Your task to perform on an android device: delete location history Image 0: 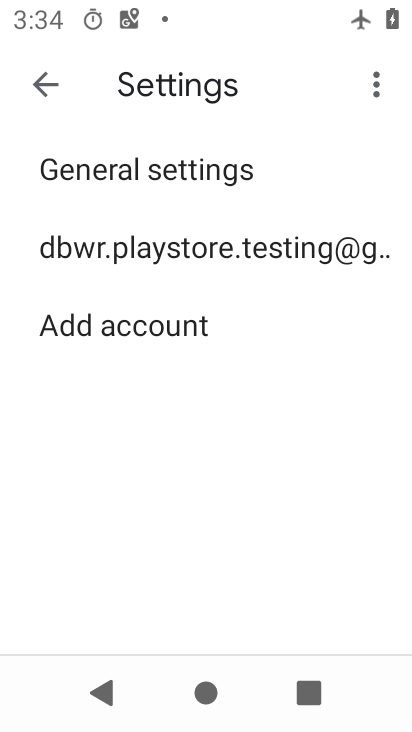
Step 0: press home button
Your task to perform on an android device: delete location history Image 1: 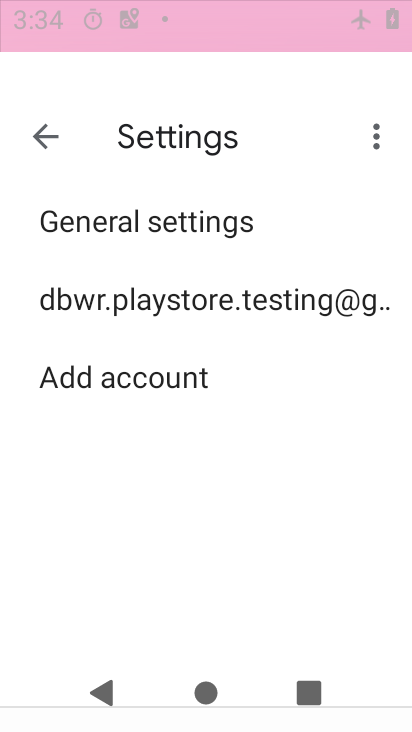
Step 1: drag from (271, 554) to (296, 49)
Your task to perform on an android device: delete location history Image 2: 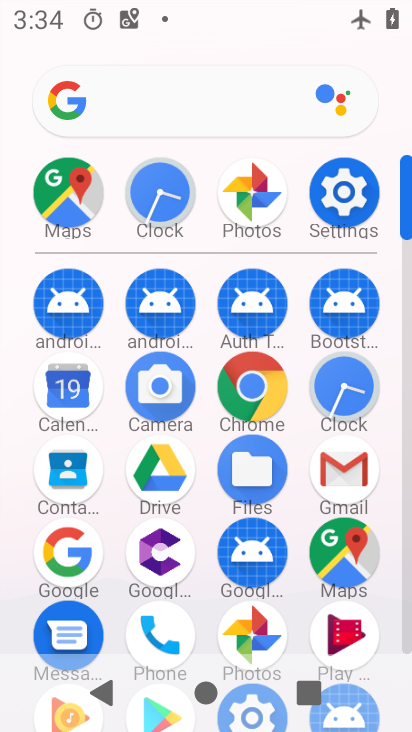
Step 2: click (334, 205)
Your task to perform on an android device: delete location history Image 3: 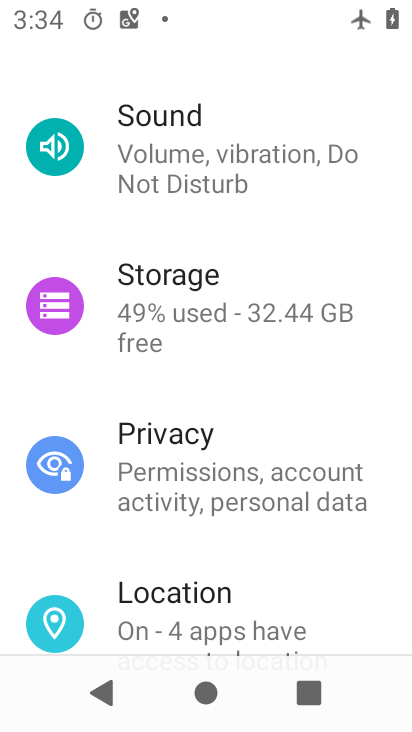
Step 3: drag from (220, 593) to (215, 230)
Your task to perform on an android device: delete location history Image 4: 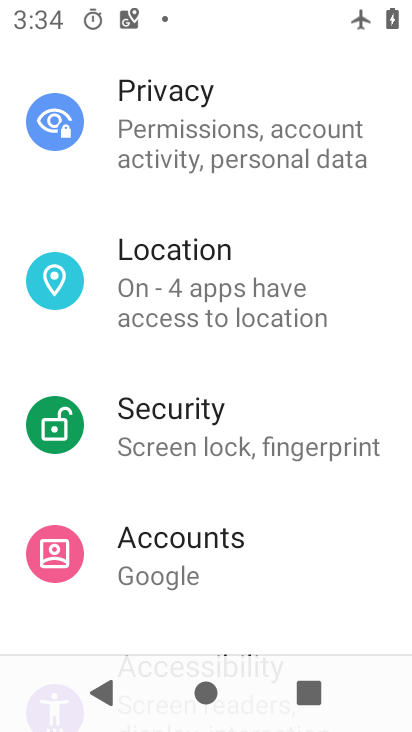
Step 4: click (202, 312)
Your task to perform on an android device: delete location history Image 5: 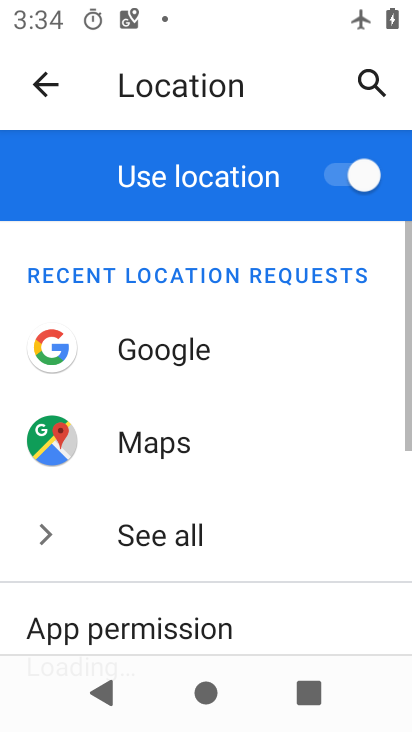
Step 5: drag from (262, 560) to (310, 32)
Your task to perform on an android device: delete location history Image 6: 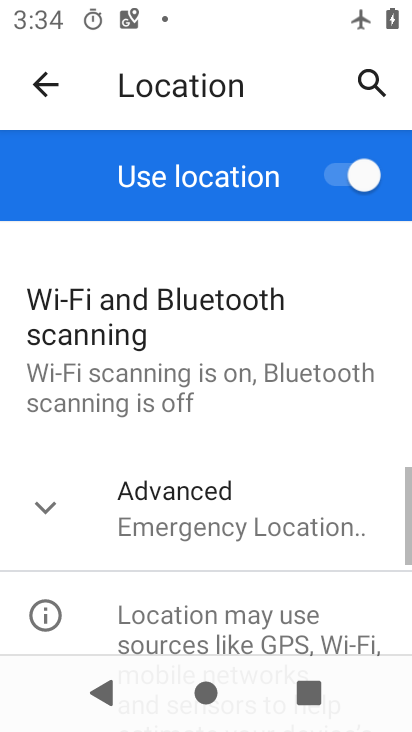
Step 6: click (169, 505)
Your task to perform on an android device: delete location history Image 7: 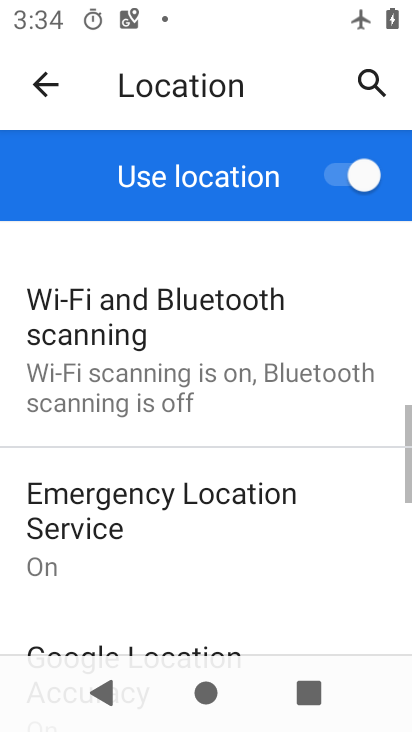
Step 7: drag from (236, 549) to (252, 174)
Your task to perform on an android device: delete location history Image 8: 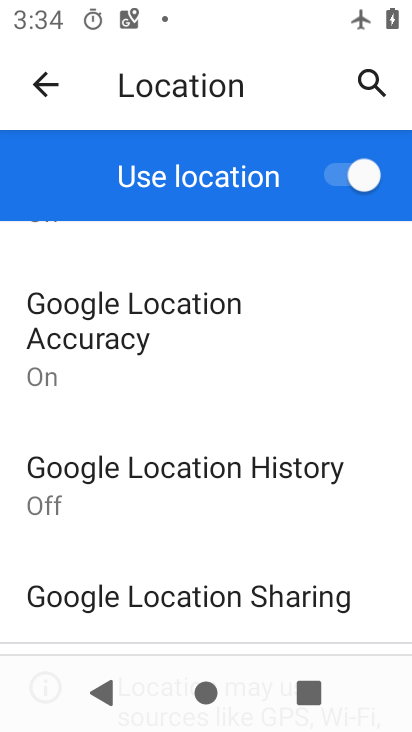
Step 8: click (232, 473)
Your task to perform on an android device: delete location history Image 9: 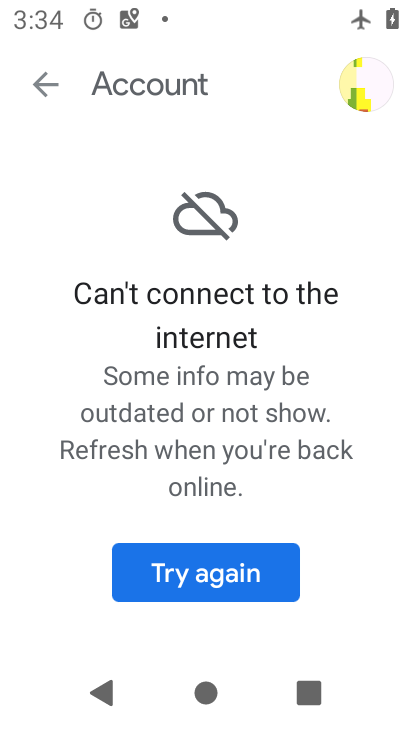
Step 9: task complete